Your task to perform on an android device: When is my next meeting? Image 0: 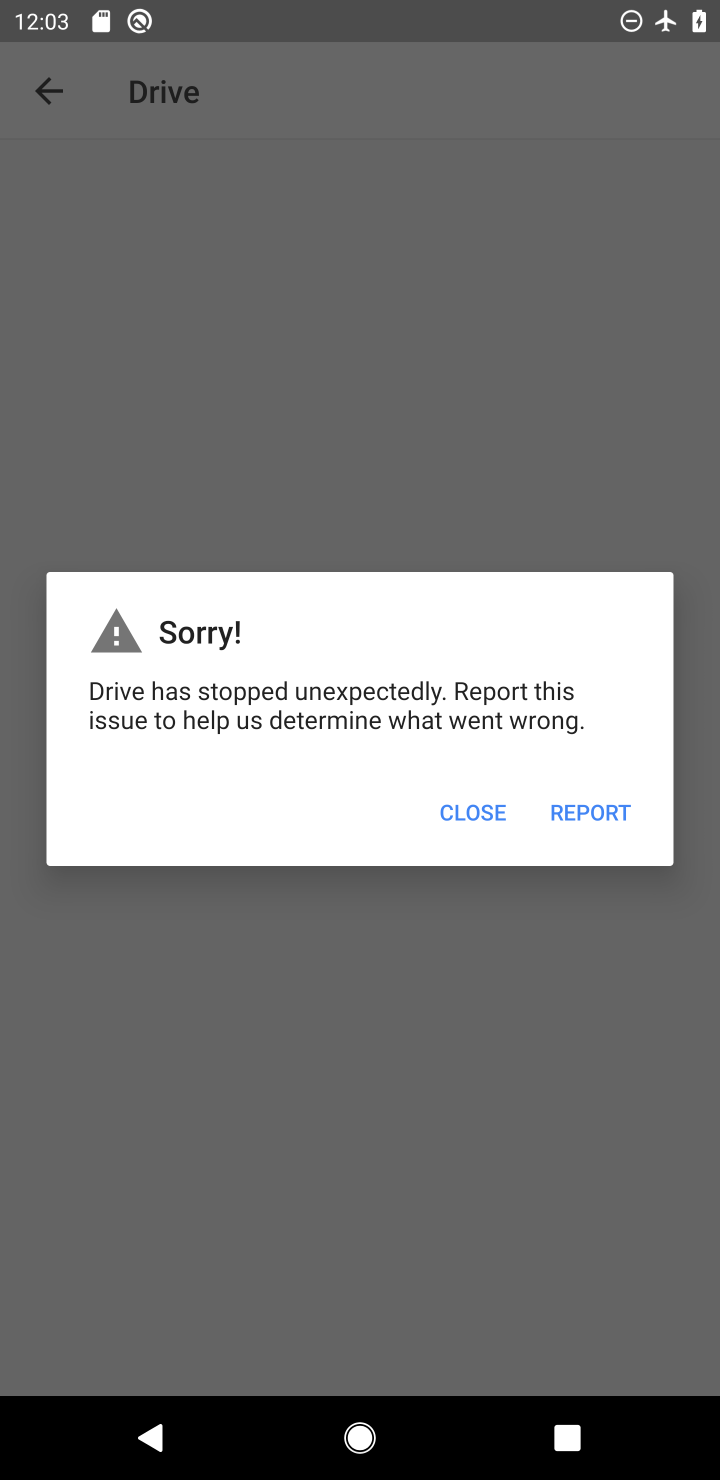
Step 0: press home button
Your task to perform on an android device: When is my next meeting? Image 1: 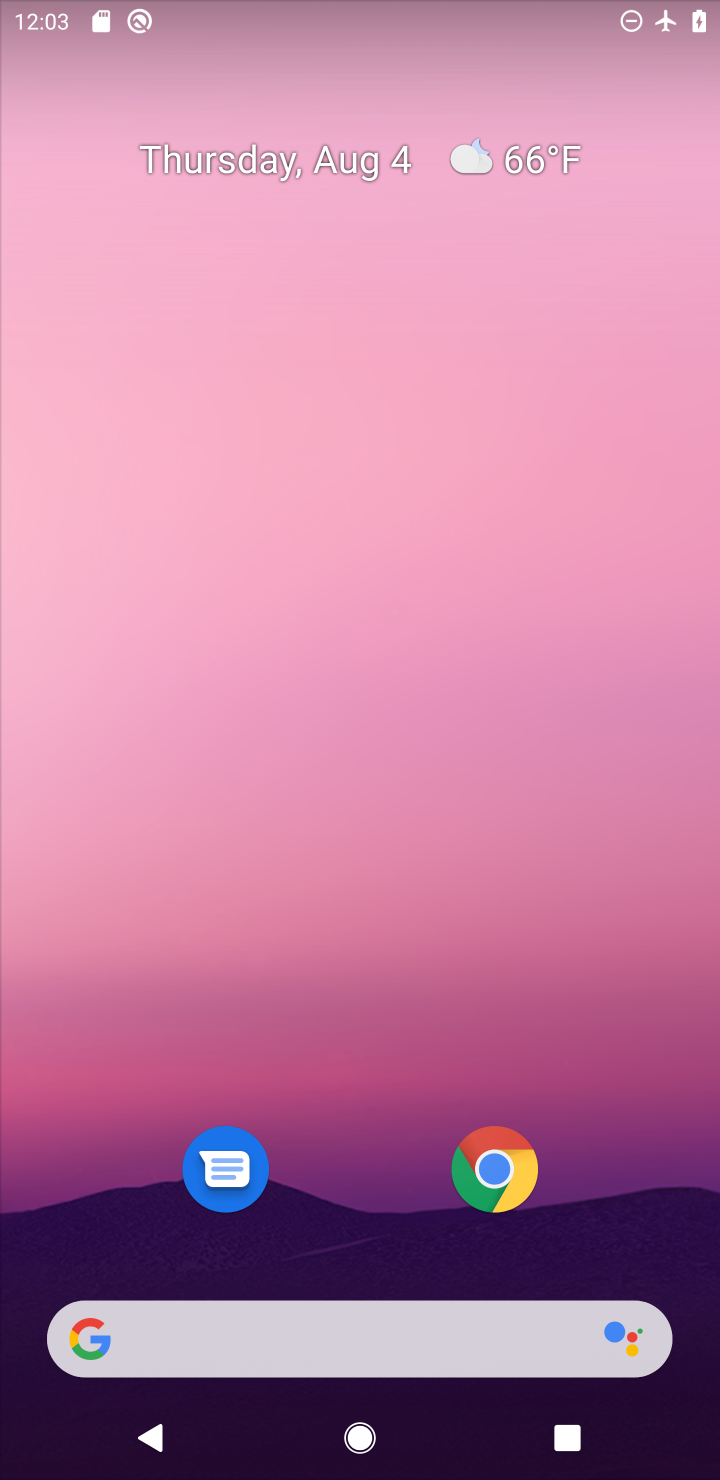
Step 1: drag from (384, 1185) to (354, 2)
Your task to perform on an android device: When is my next meeting? Image 2: 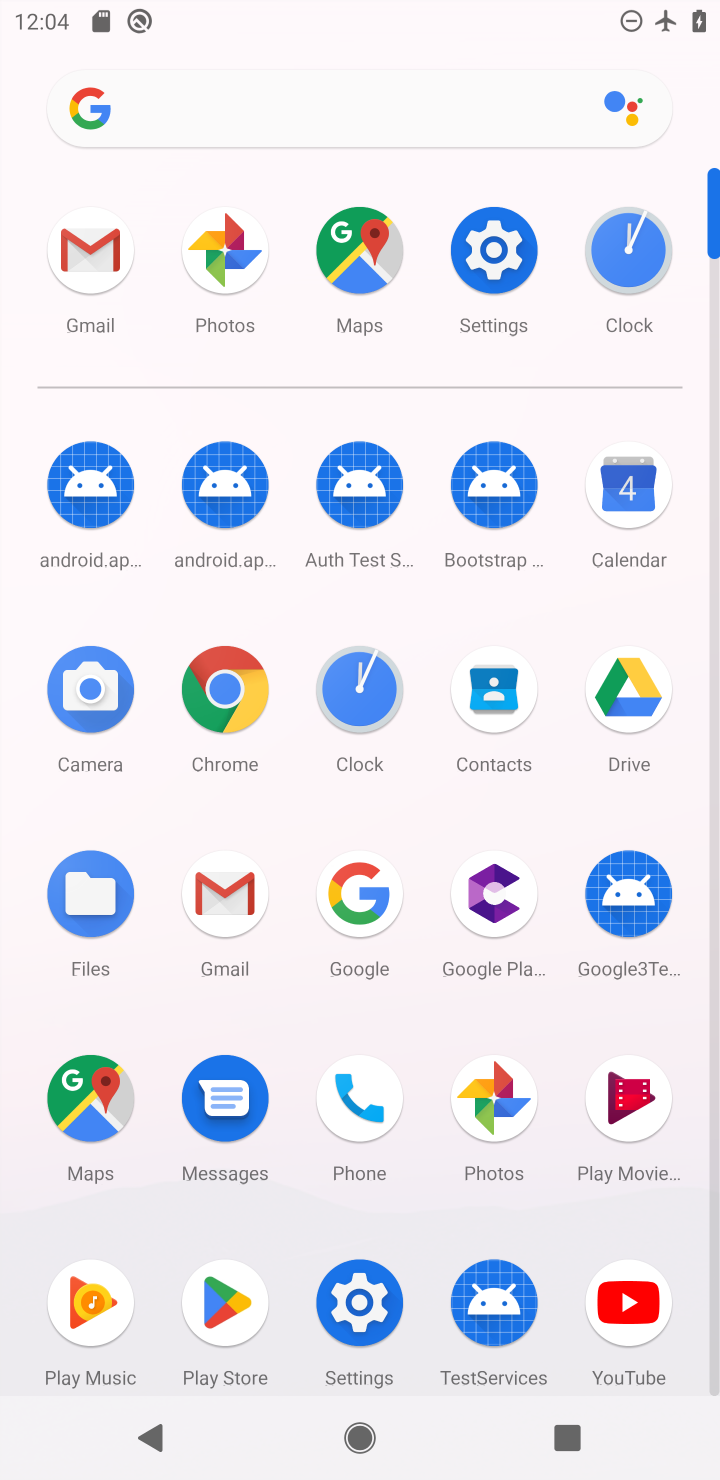
Step 2: click (621, 499)
Your task to perform on an android device: When is my next meeting? Image 3: 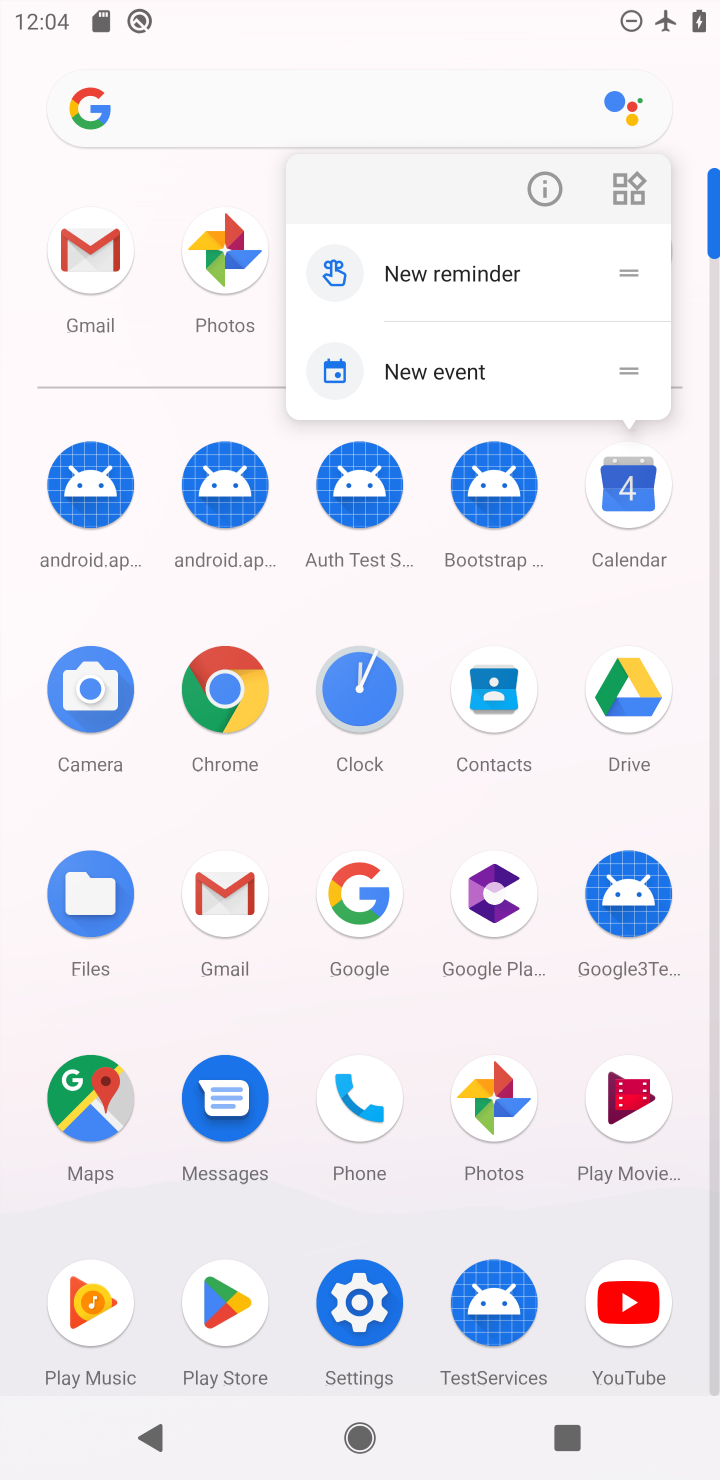
Step 3: click (621, 499)
Your task to perform on an android device: When is my next meeting? Image 4: 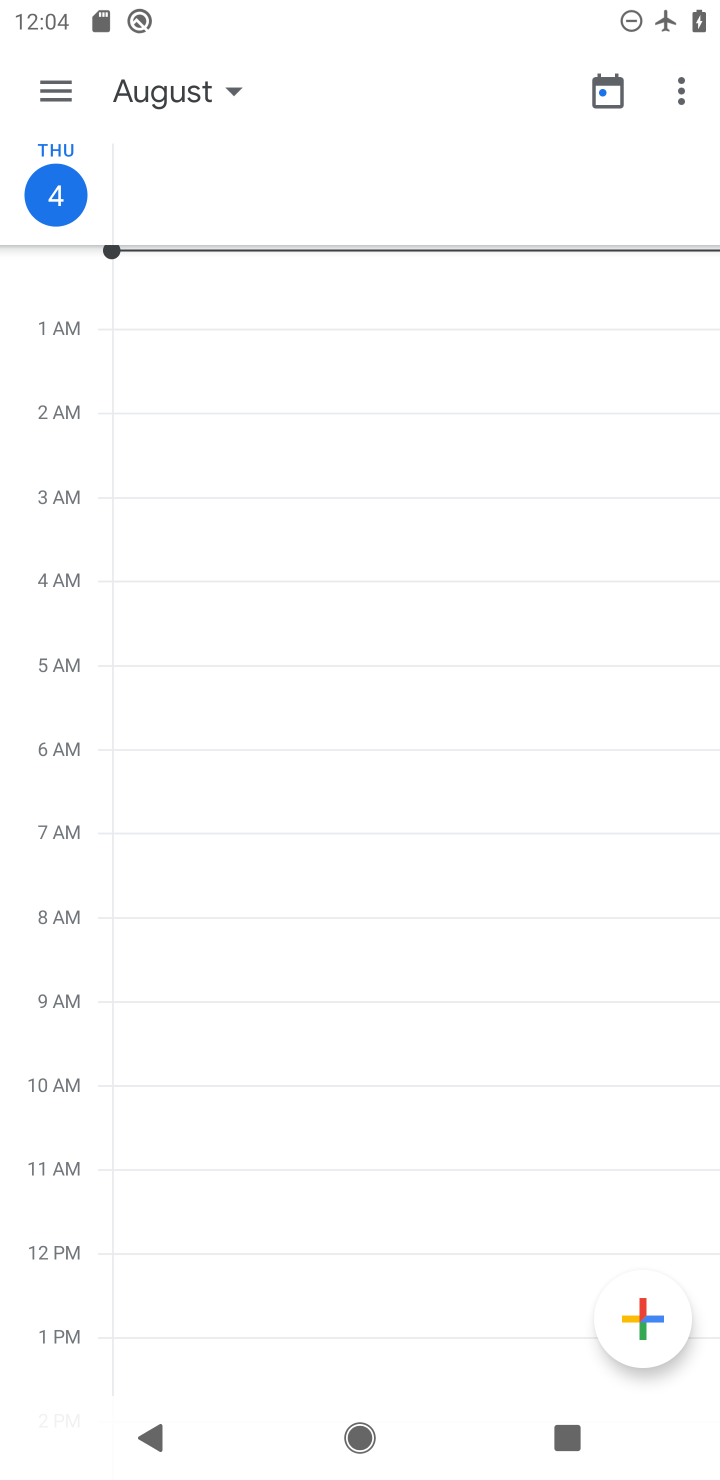
Step 4: click (59, 81)
Your task to perform on an android device: When is my next meeting? Image 5: 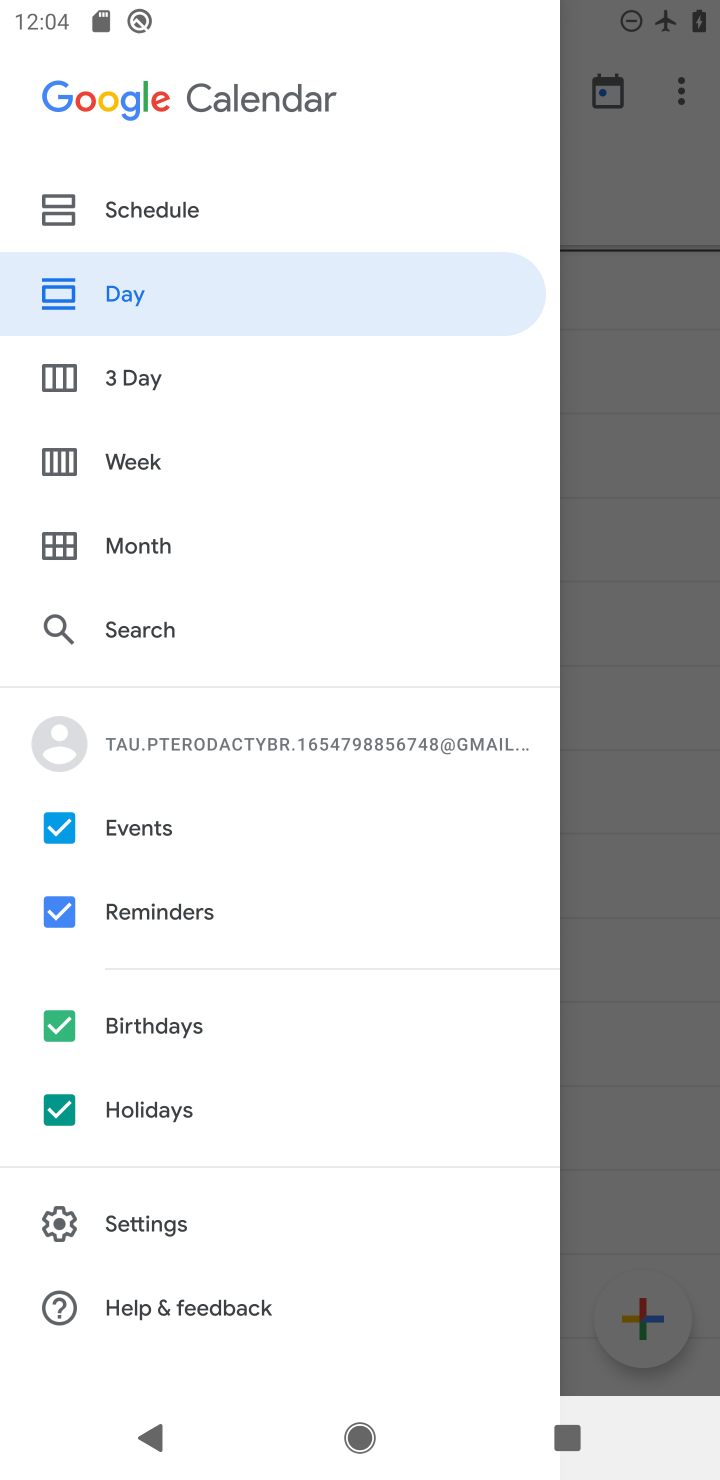
Step 5: click (147, 203)
Your task to perform on an android device: When is my next meeting? Image 6: 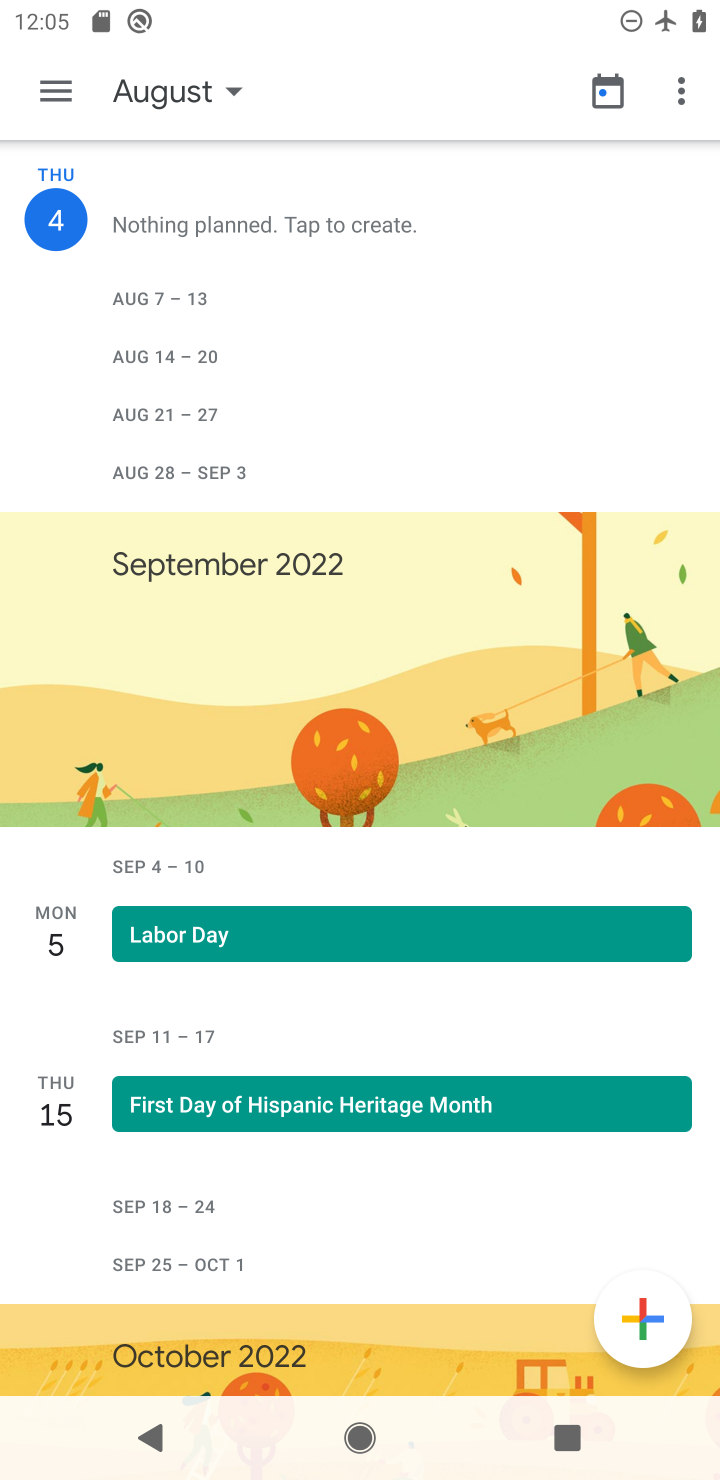
Step 6: task complete